Your task to perform on an android device: check storage Image 0: 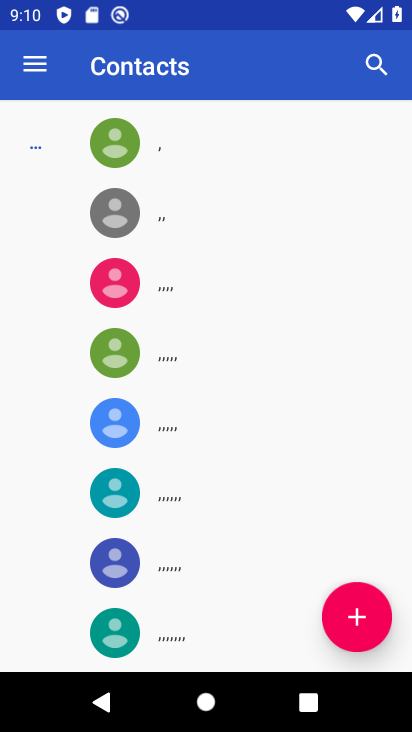
Step 0: press home button
Your task to perform on an android device: check storage Image 1: 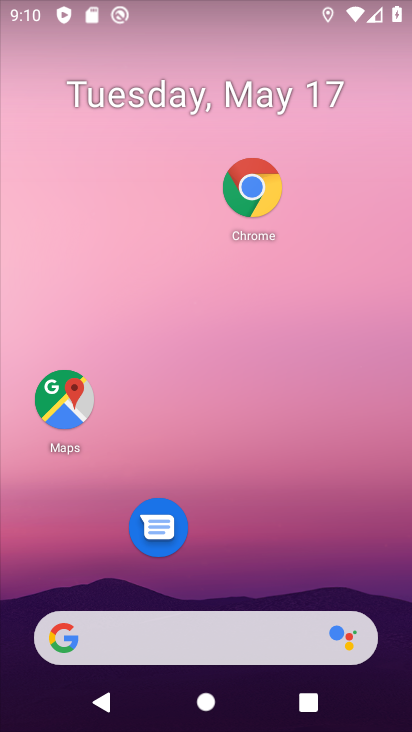
Step 1: drag from (304, 591) to (340, 43)
Your task to perform on an android device: check storage Image 2: 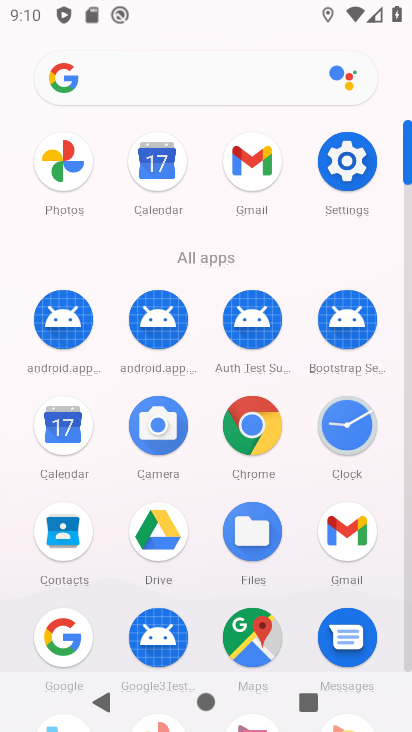
Step 2: click (347, 149)
Your task to perform on an android device: check storage Image 3: 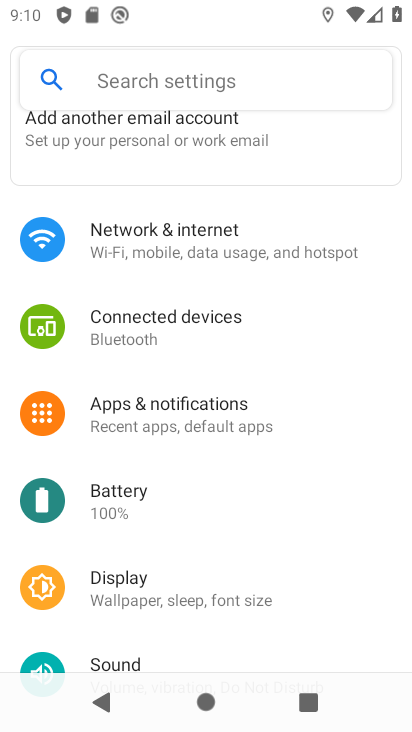
Step 3: drag from (205, 547) to (282, 210)
Your task to perform on an android device: check storage Image 4: 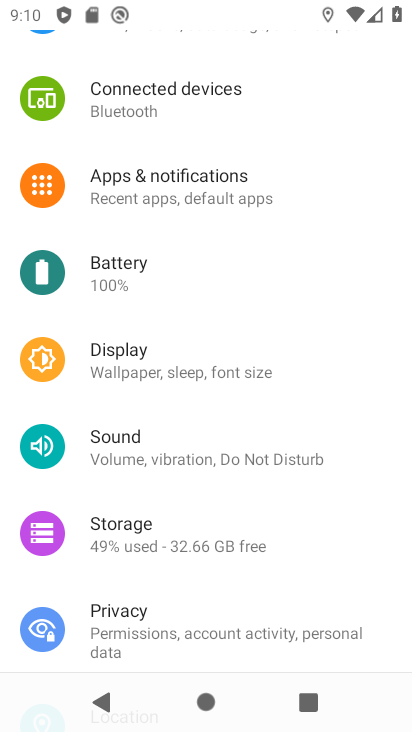
Step 4: click (222, 556)
Your task to perform on an android device: check storage Image 5: 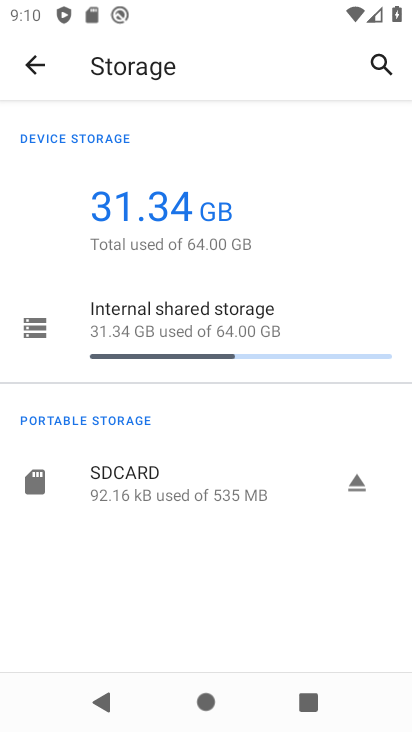
Step 5: task complete